Your task to perform on an android device: What is the news today? Image 0: 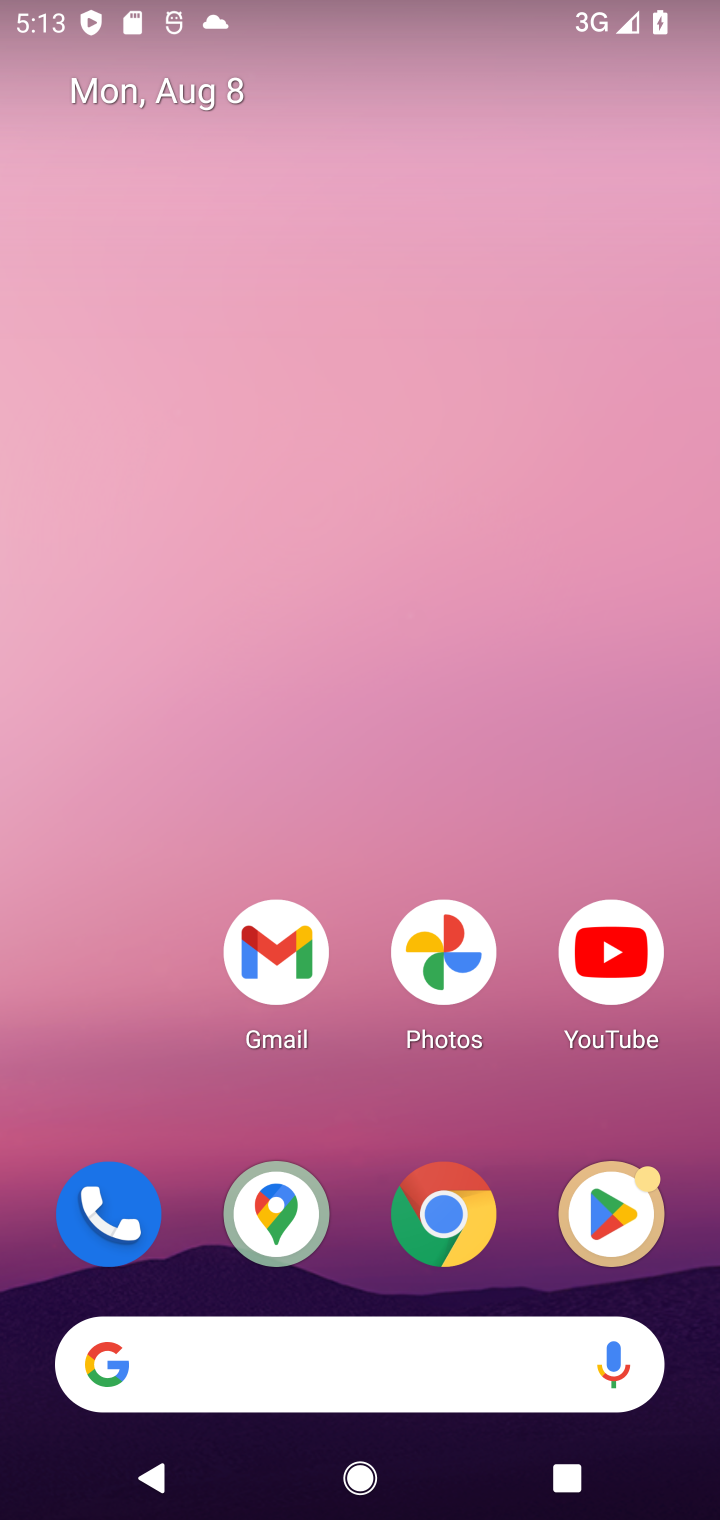
Step 0: drag from (376, 1158) to (383, 159)
Your task to perform on an android device: What is the news today? Image 1: 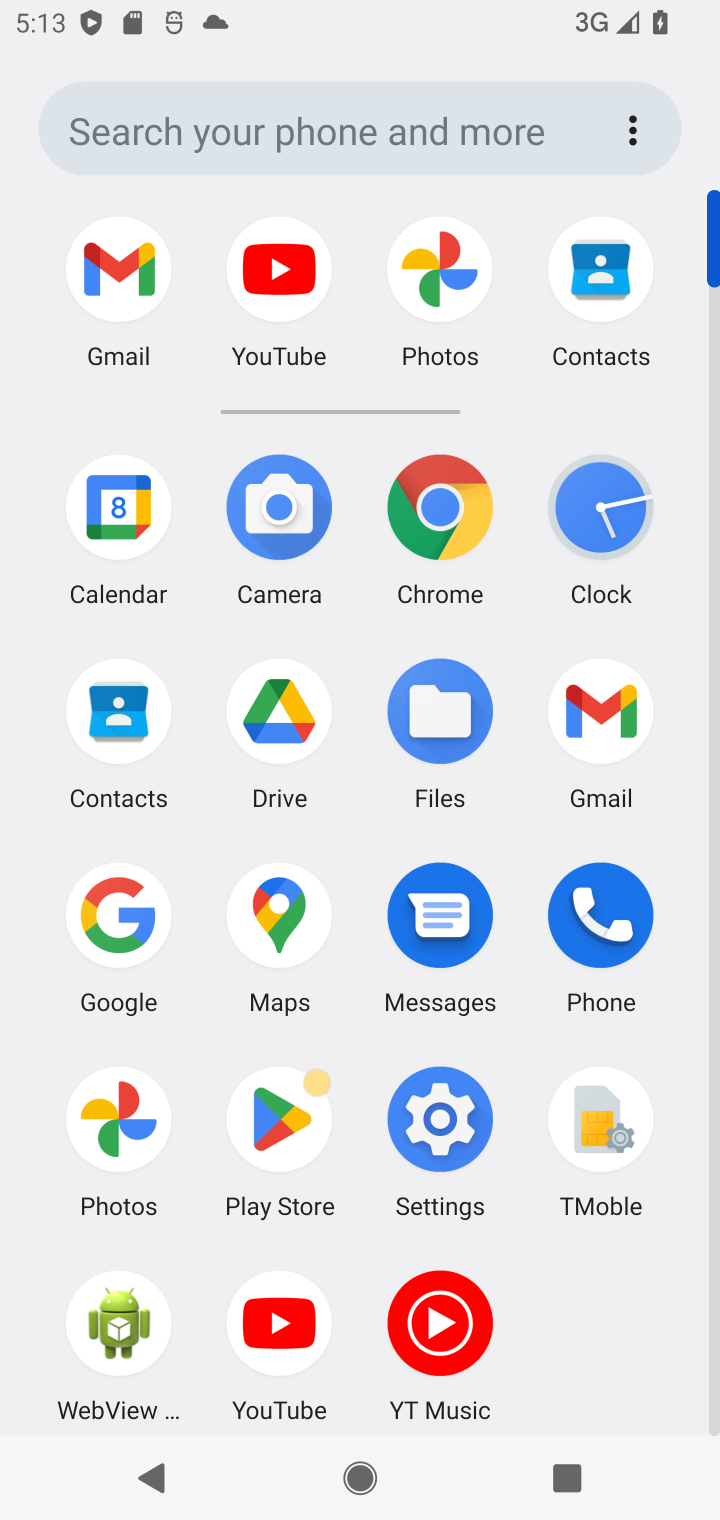
Step 1: click (131, 912)
Your task to perform on an android device: What is the news today? Image 2: 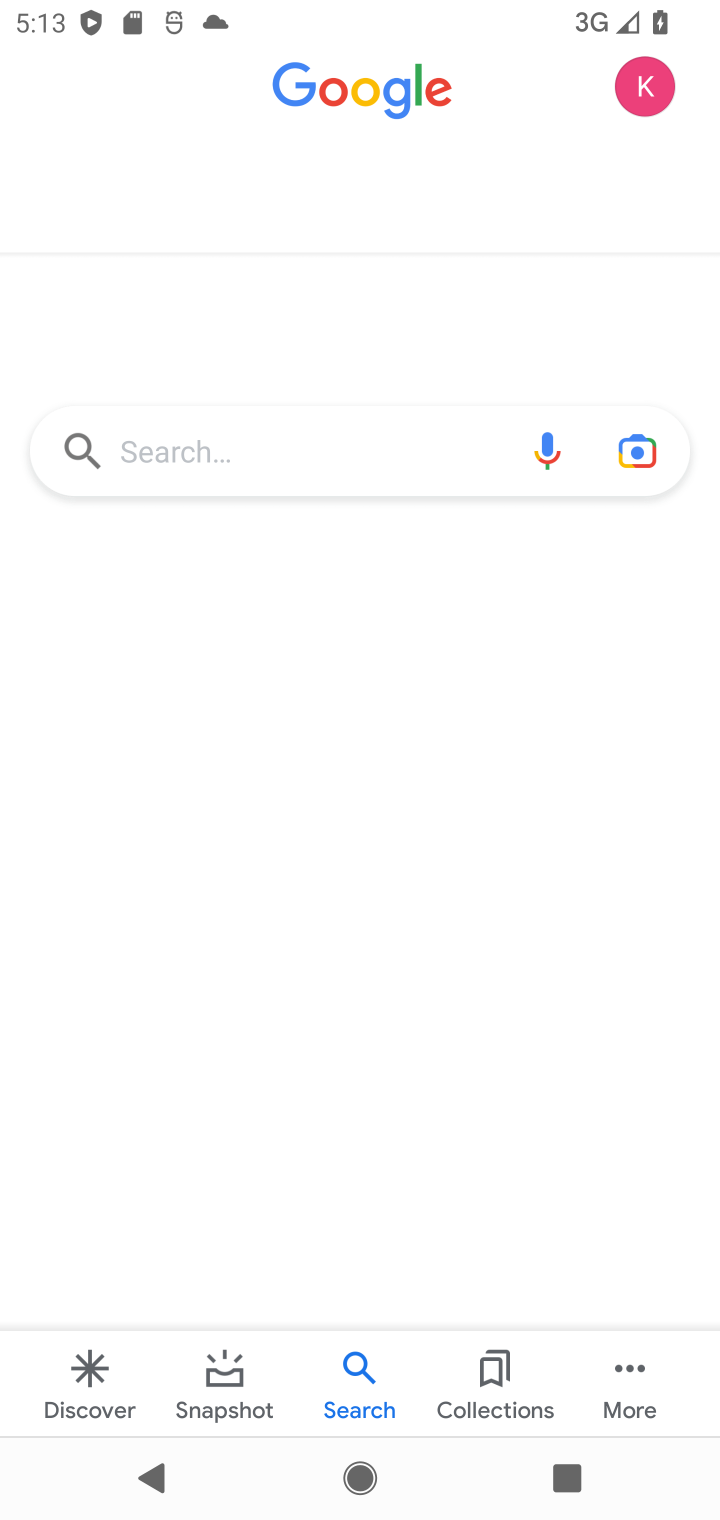
Step 2: click (71, 1376)
Your task to perform on an android device: What is the news today? Image 3: 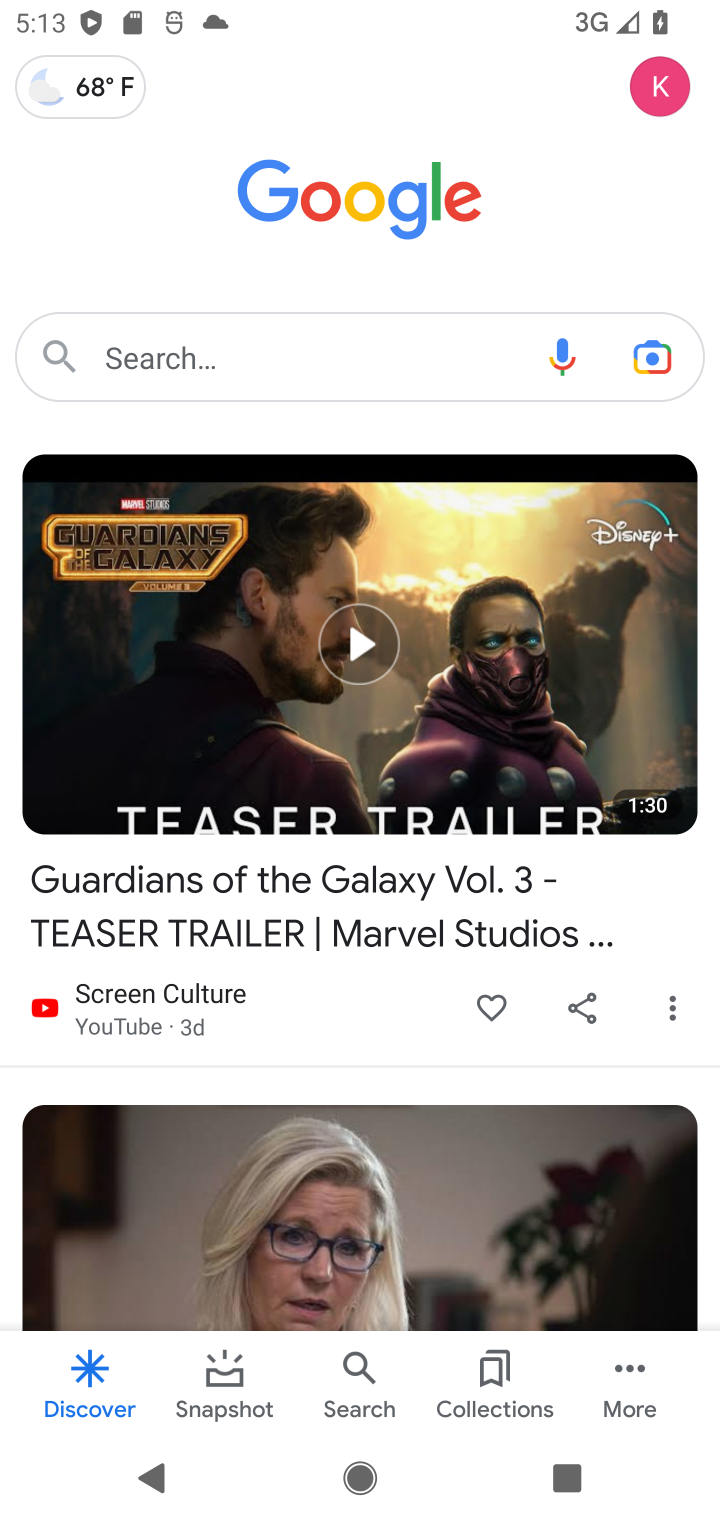
Step 3: task complete